Your task to perform on an android device: uninstall "Adobe Express: Graphic Design" Image 0: 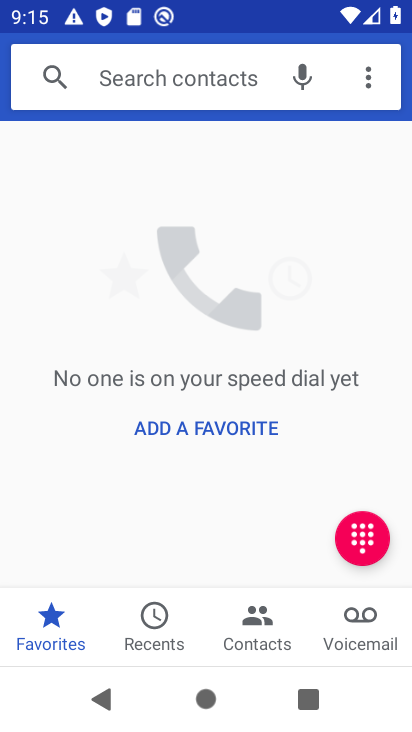
Step 0: press home button
Your task to perform on an android device: uninstall "Adobe Express: Graphic Design" Image 1: 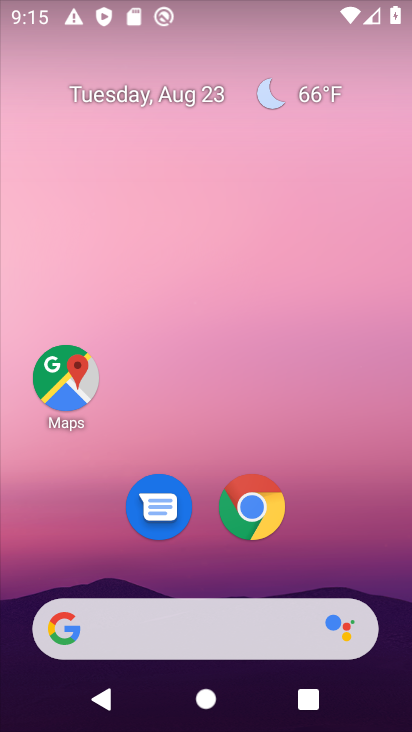
Step 1: drag from (381, 596) to (368, 189)
Your task to perform on an android device: uninstall "Adobe Express: Graphic Design" Image 2: 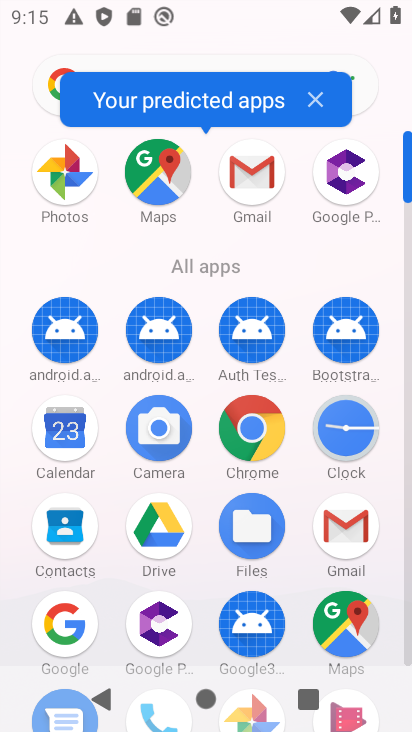
Step 2: click (410, 641)
Your task to perform on an android device: uninstall "Adobe Express: Graphic Design" Image 3: 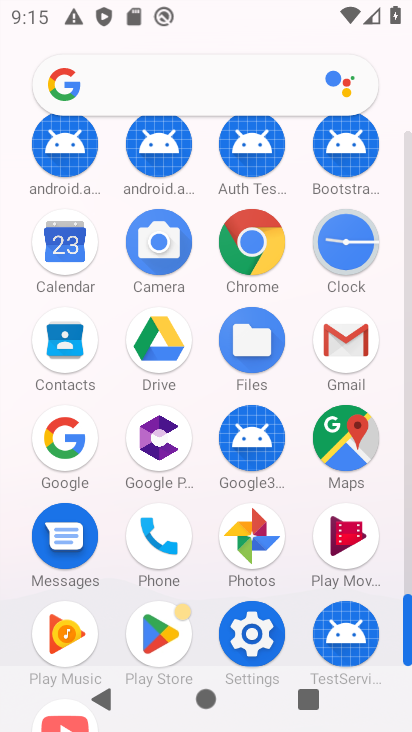
Step 3: click (159, 631)
Your task to perform on an android device: uninstall "Adobe Express: Graphic Design" Image 4: 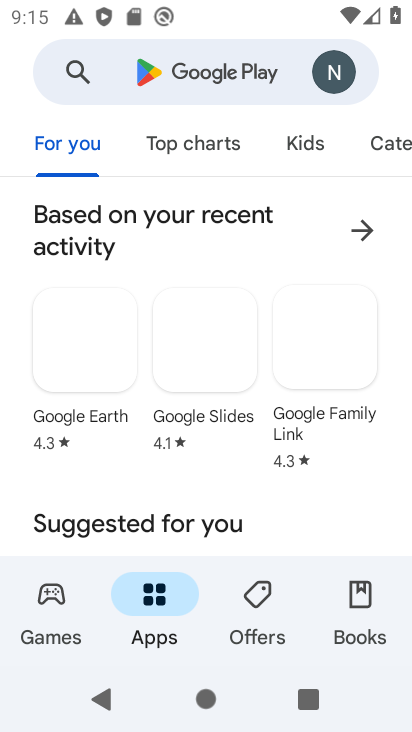
Step 4: click (83, 70)
Your task to perform on an android device: uninstall "Adobe Express: Graphic Design" Image 5: 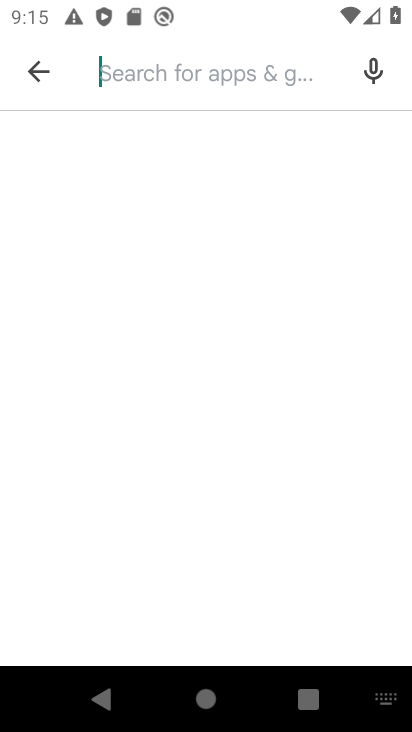
Step 5: type "Adobe Express: Graphic Design"
Your task to perform on an android device: uninstall "Adobe Express: Graphic Design" Image 6: 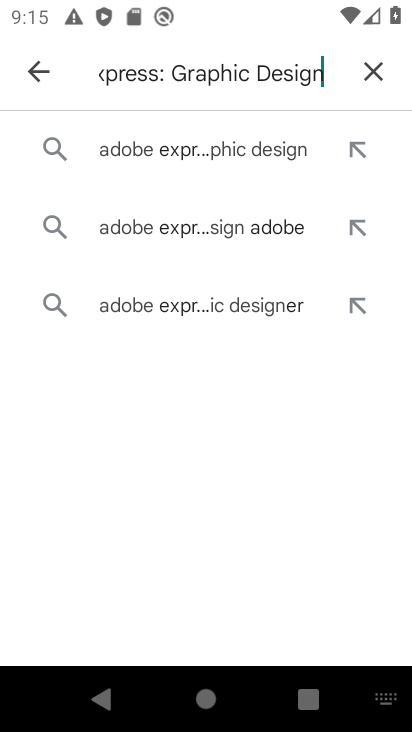
Step 6: click (156, 151)
Your task to perform on an android device: uninstall "Adobe Express: Graphic Design" Image 7: 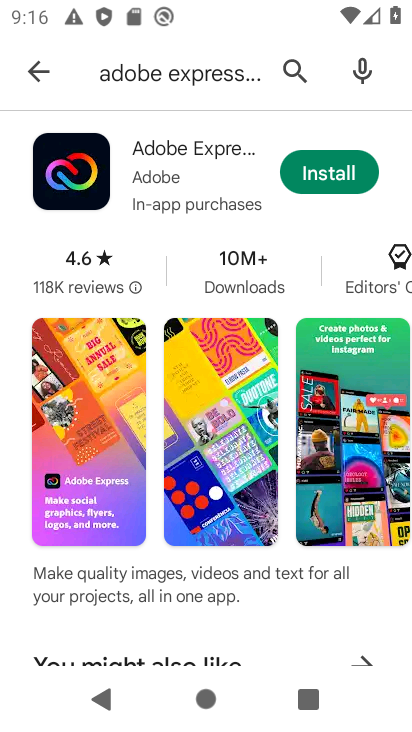
Step 7: task complete